Your task to perform on an android device: Add "macbook air" to the cart on target, then select checkout. Image 0: 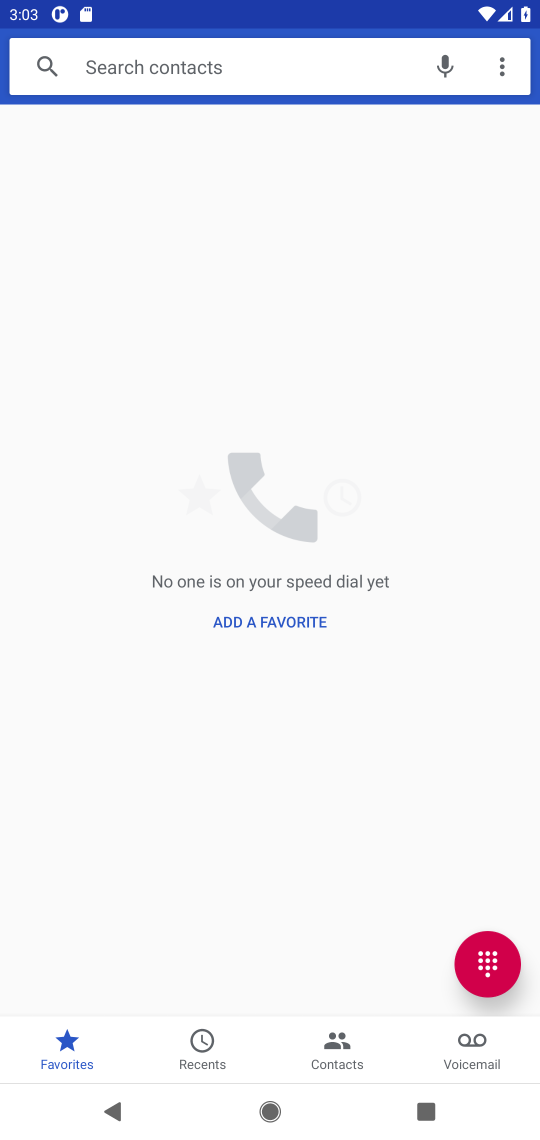
Step 0: press home button
Your task to perform on an android device: Add "macbook air" to the cart on target, then select checkout. Image 1: 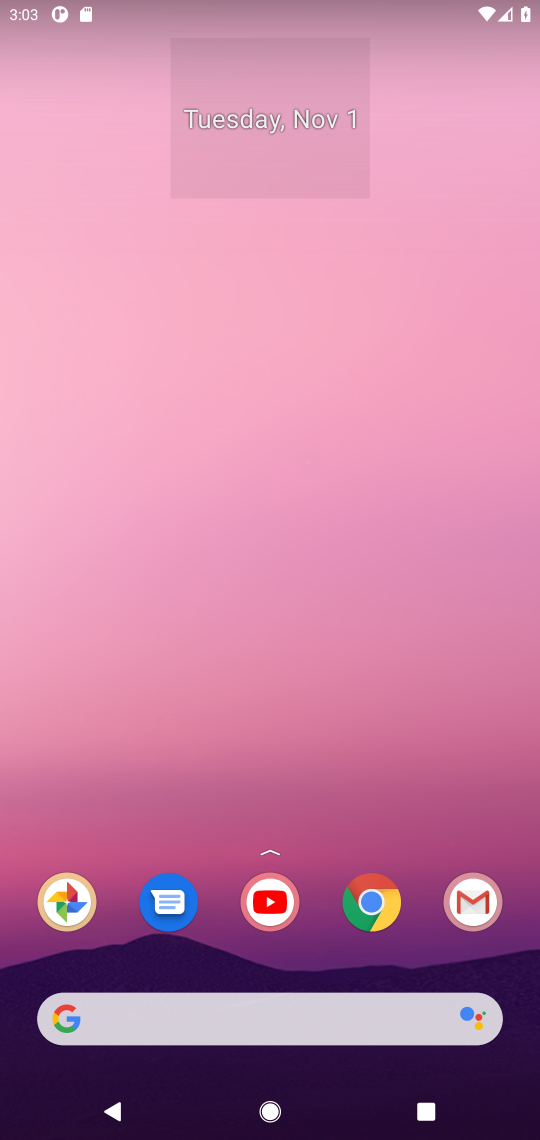
Step 1: click (376, 906)
Your task to perform on an android device: Add "macbook air" to the cart on target, then select checkout. Image 2: 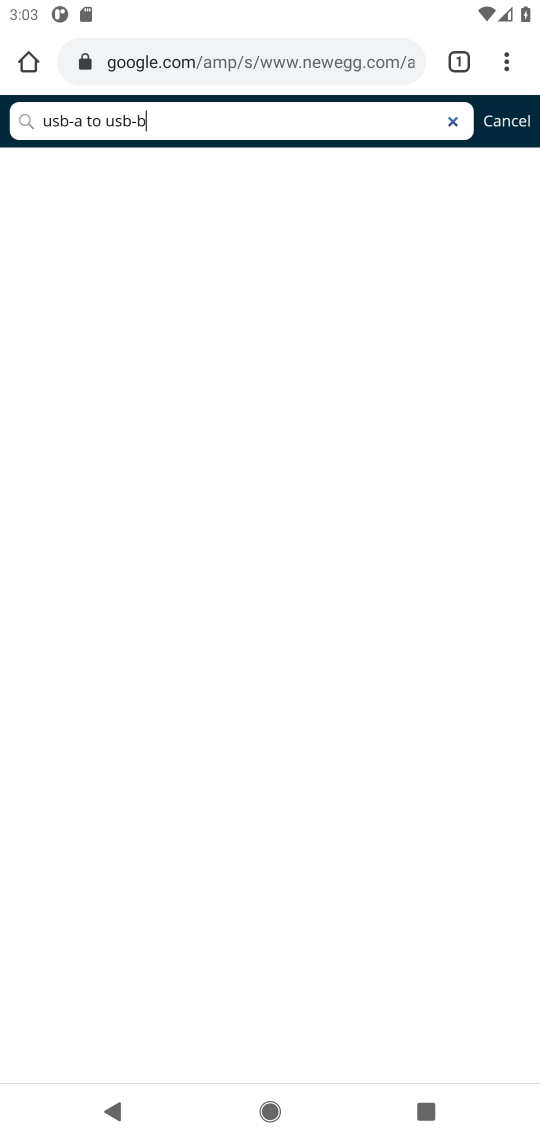
Step 2: click (225, 63)
Your task to perform on an android device: Add "macbook air" to the cart on target, then select checkout. Image 3: 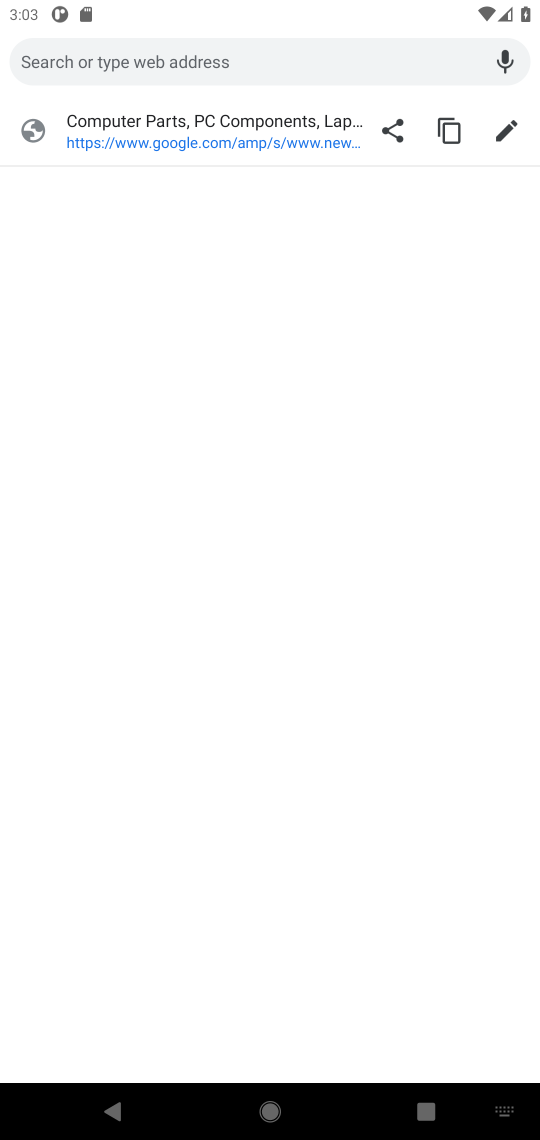
Step 3: type "target"
Your task to perform on an android device: Add "macbook air" to the cart on target, then select checkout. Image 4: 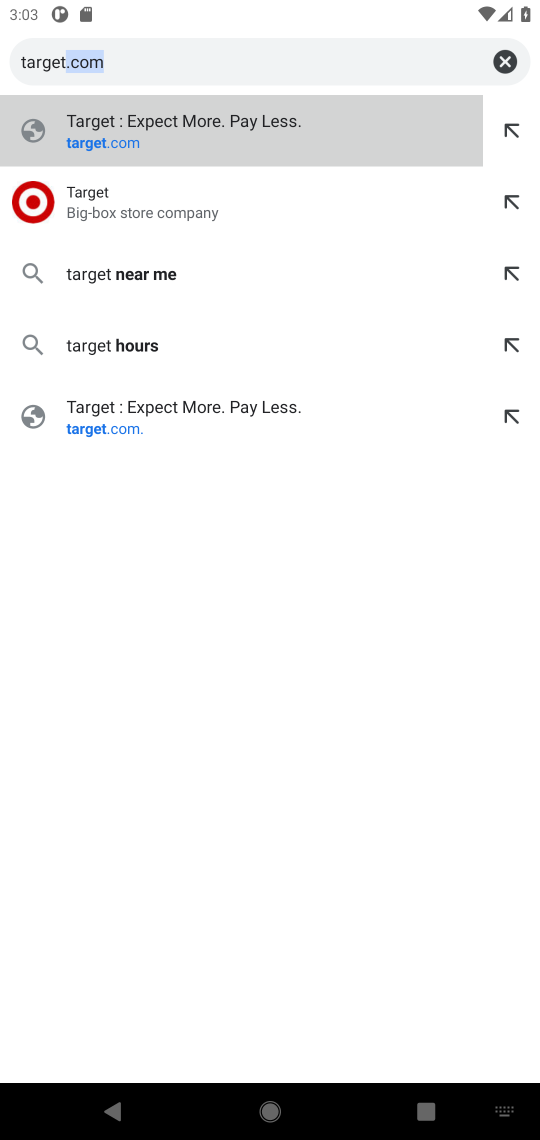
Step 4: click (106, 204)
Your task to perform on an android device: Add "macbook air" to the cart on target, then select checkout. Image 5: 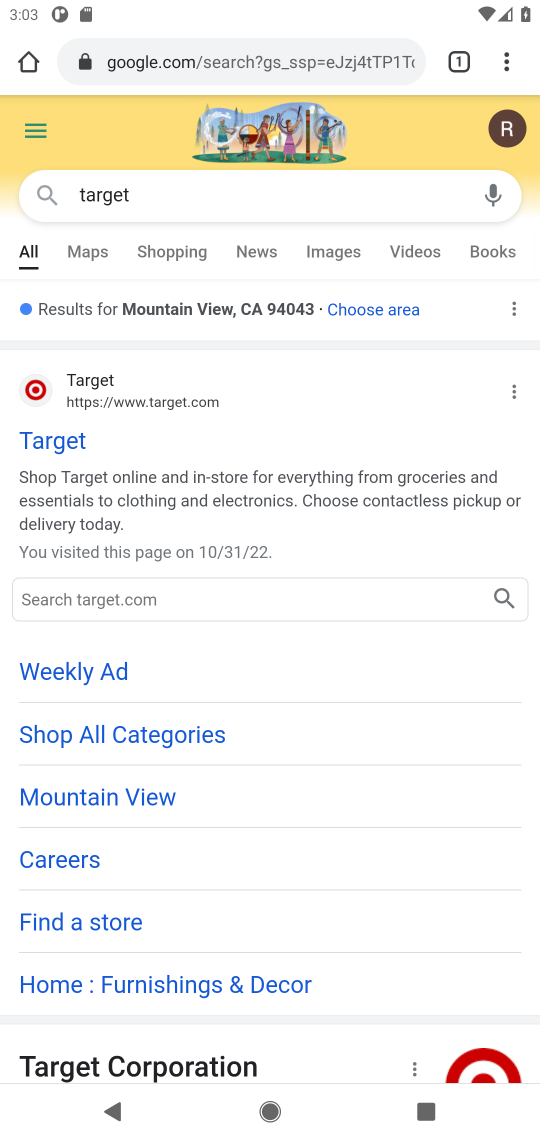
Step 5: click (155, 404)
Your task to perform on an android device: Add "macbook air" to the cart on target, then select checkout. Image 6: 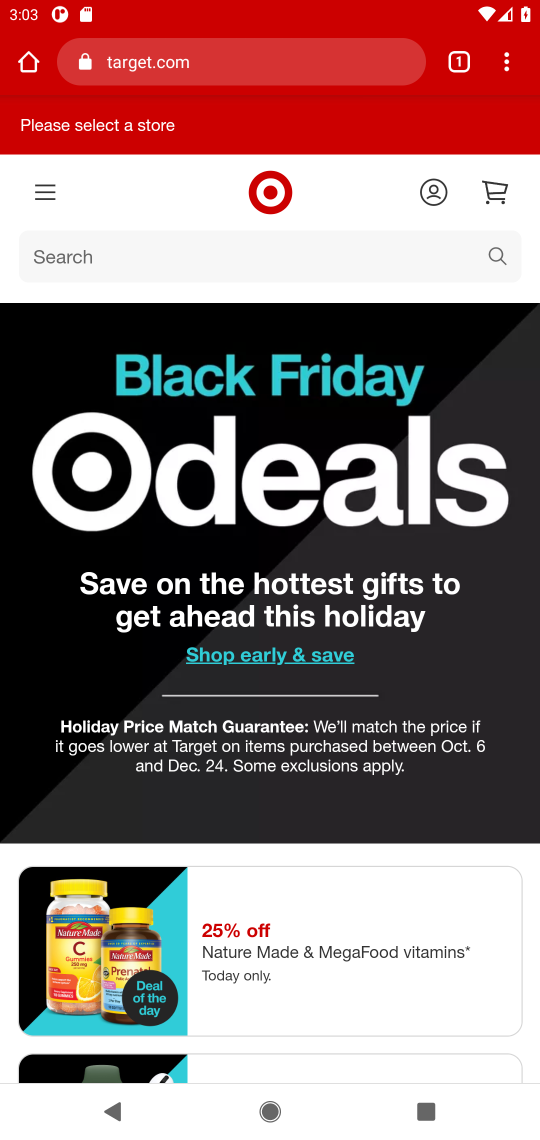
Step 6: click (379, 265)
Your task to perform on an android device: Add "macbook air" to the cart on target, then select checkout. Image 7: 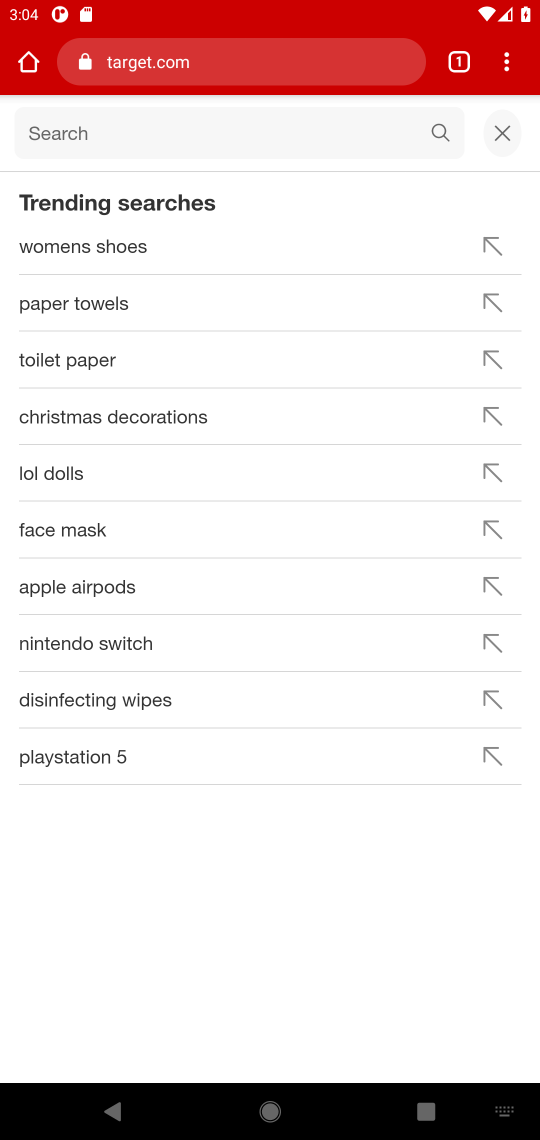
Step 7: type "macbook air"
Your task to perform on an android device: Add "macbook air" to the cart on target, then select checkout. Image 8: 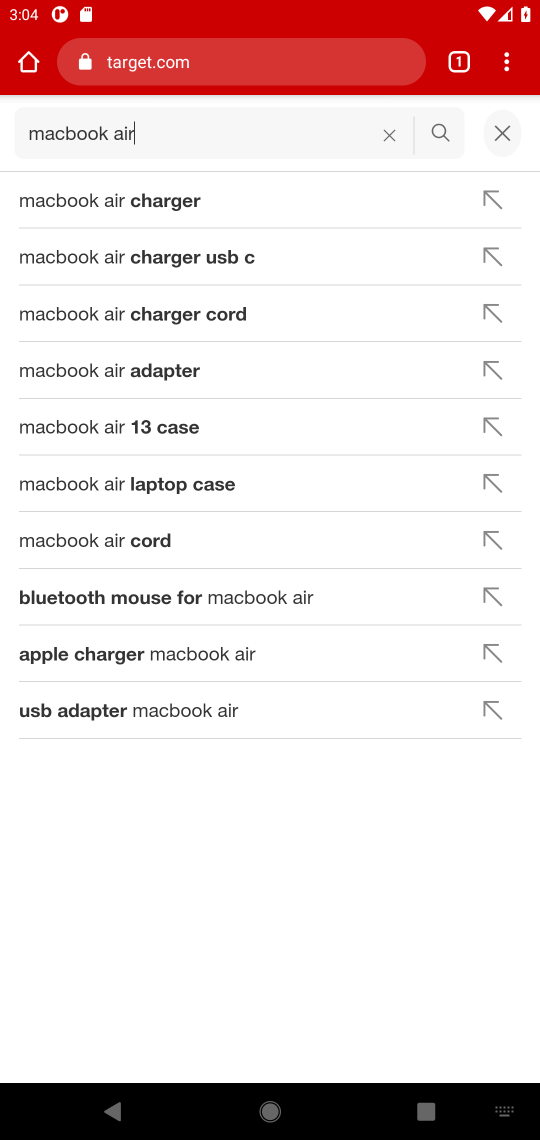
Step 8: click (434, 132)
Your task to perform on an android device: Add "macbook air" to the cart on target, then select checkout. Image 9: 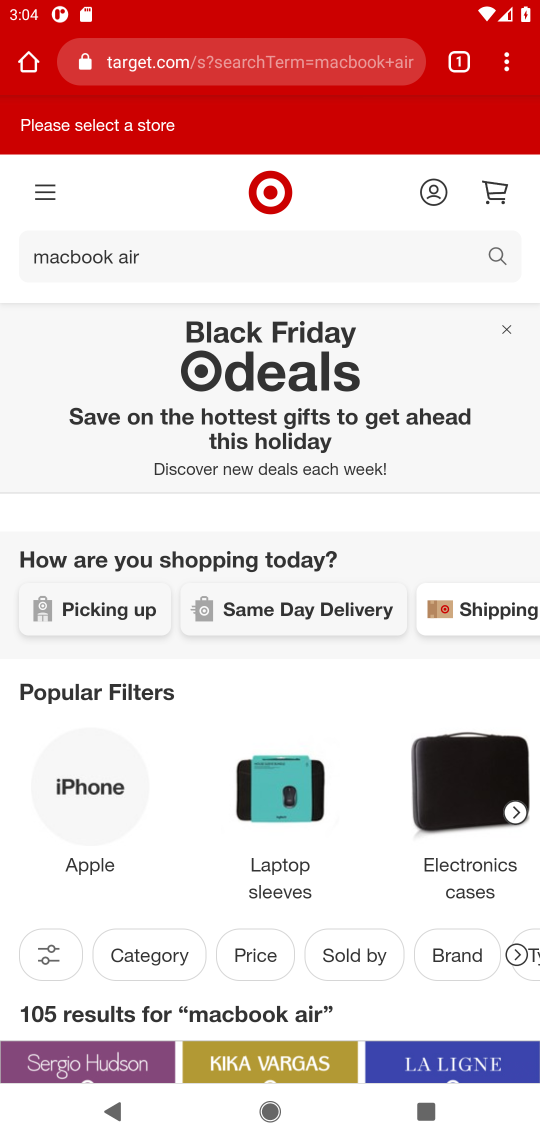
Step 9: drag from (167, 830) to (238, 228)
Your task to perform on an android device: Add "macbook air" to the cart on target, then select checkout. Image 10: 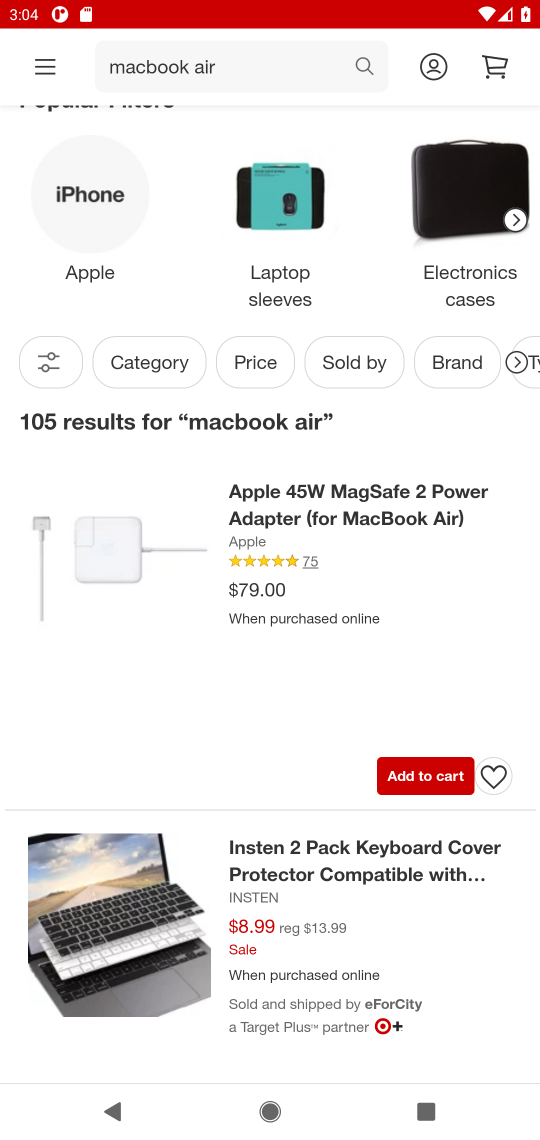
Step 10: click (420, 775)
Your task to perform on an android device: Add "macbook air" to the cart on target, then select checkout. Image 11: 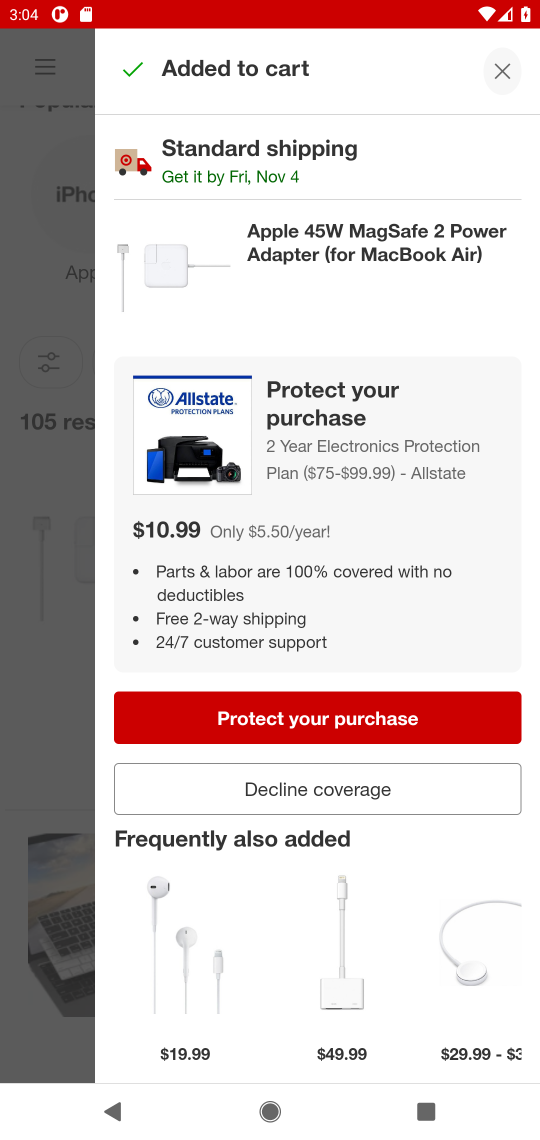
Step 11: click (362, 793)
Your task to perform on an android device: Add "macbook air" to the cart on target, then select checkout. Image 12: 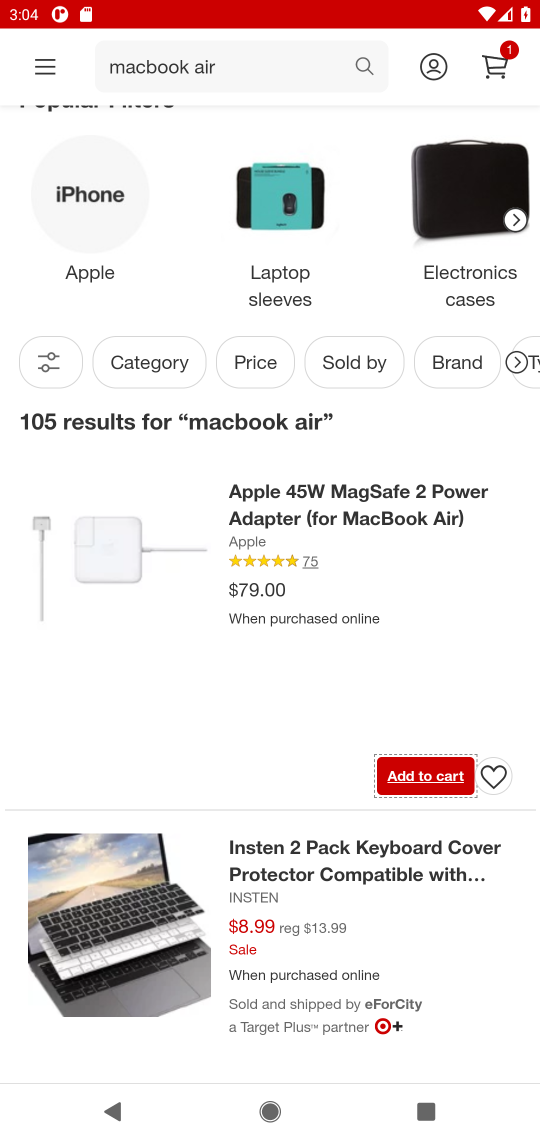
Step 12: click (501, 67)
Your task to perform on an android device: Add "macbook air" to the cart on target, then select checkout. Image 13: 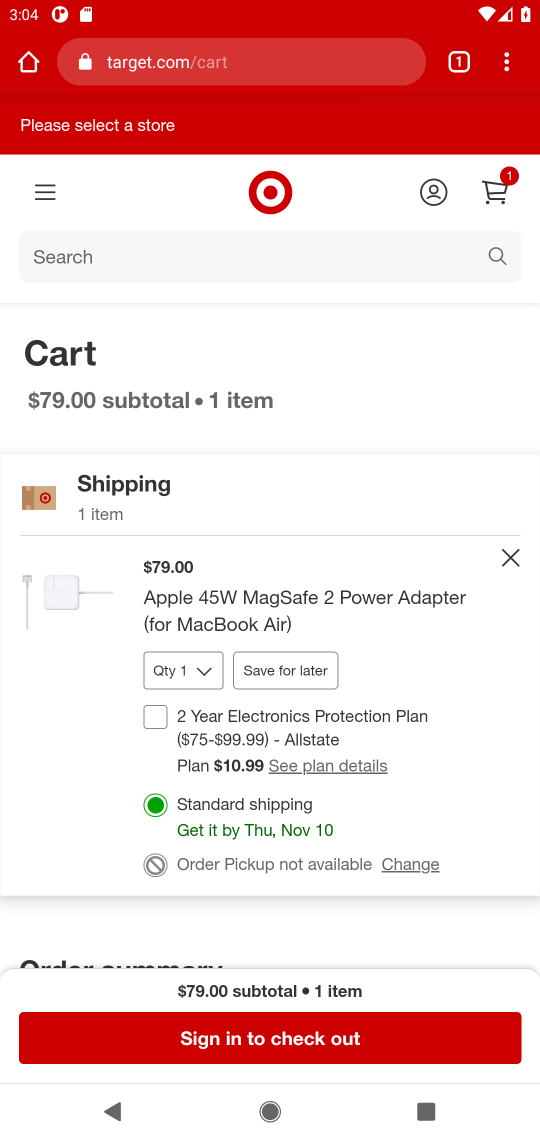
Step 13: click (265, 1042)
Your task to perform on an android device: Add "macbook air" to the cart on target, then select checkout. Image 14: 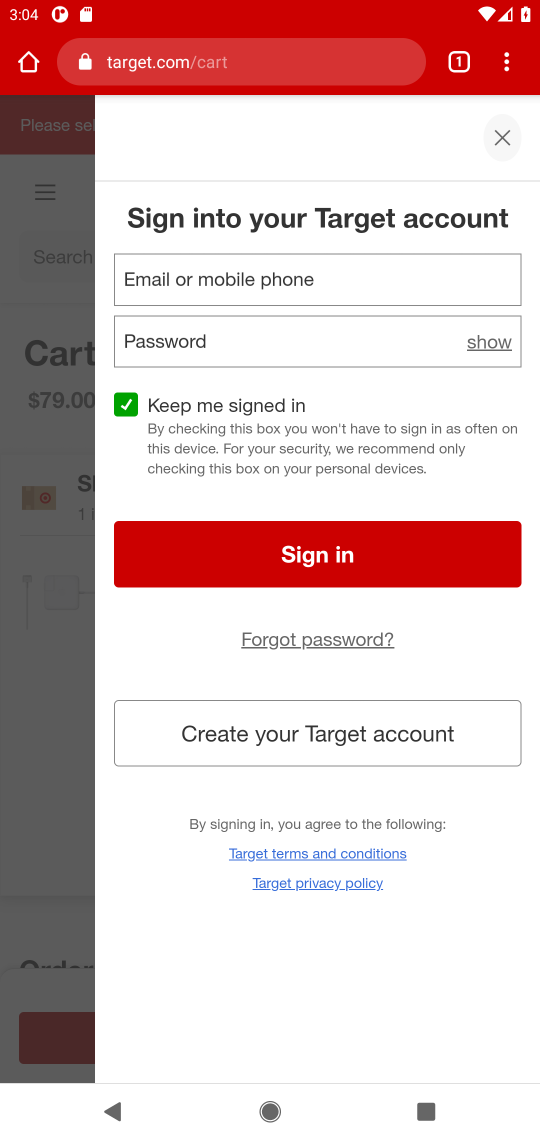
Step 14: task complete